Your task to perform on an android device: turn on translation in the chrome app Image 0: 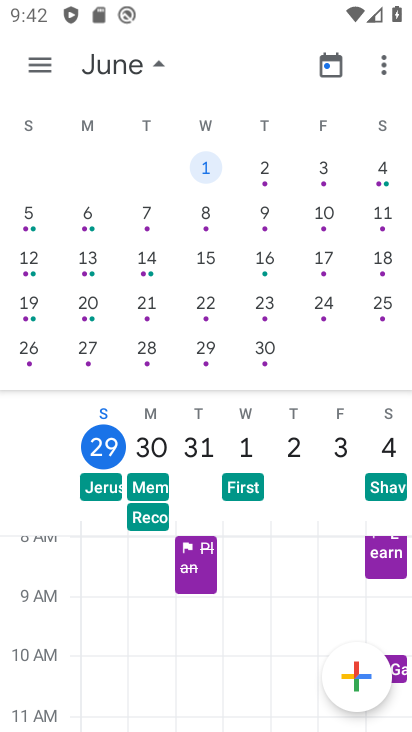
Step 0: press home button
Your task to perform on an android device: turn on translation in the chrome app Image 1: 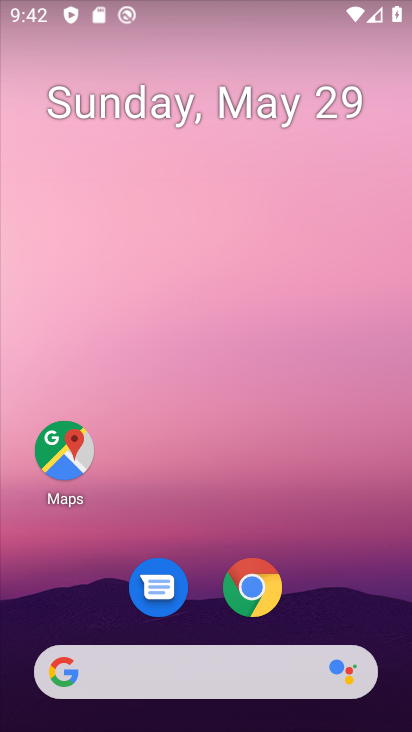
Step 1: click (245, 582)
Your task to perform on an android device: turn on translation in the chrome app Image 2: 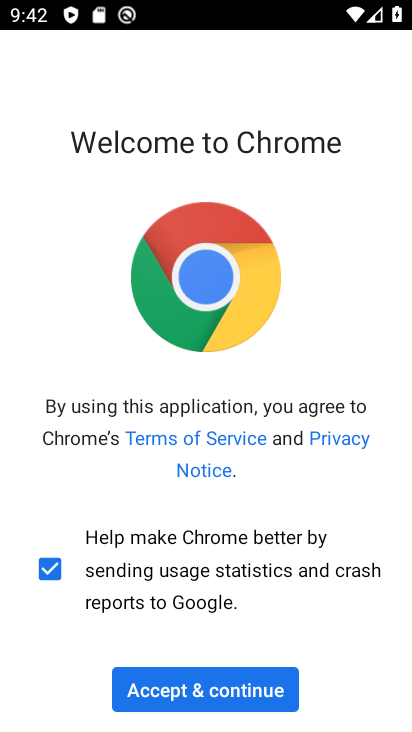
Step 2: click (223, 694)
Your task to perform on an android device: turn on translation in the chrome app Image 3: 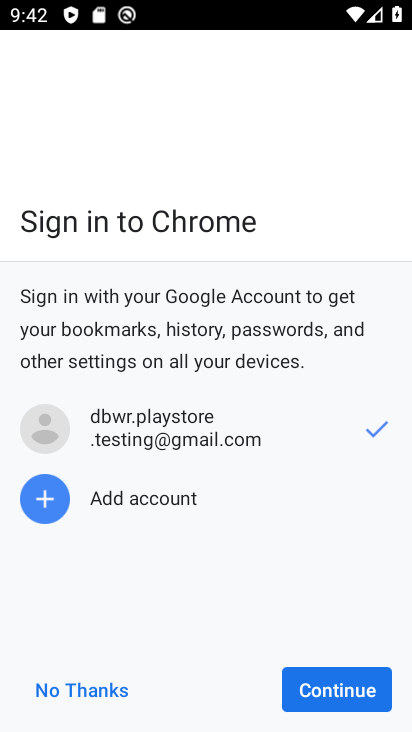
Step 3: click (313, 694)
Your task to perform on an android device: turn on translation in the chrome app Image 4: 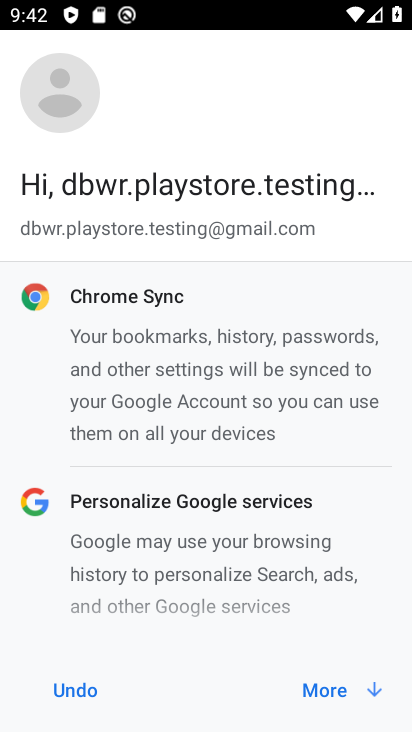
Step 4: click (313, 694)
Your task to perform on an android device: turn on translation in the chrome app Image 5: 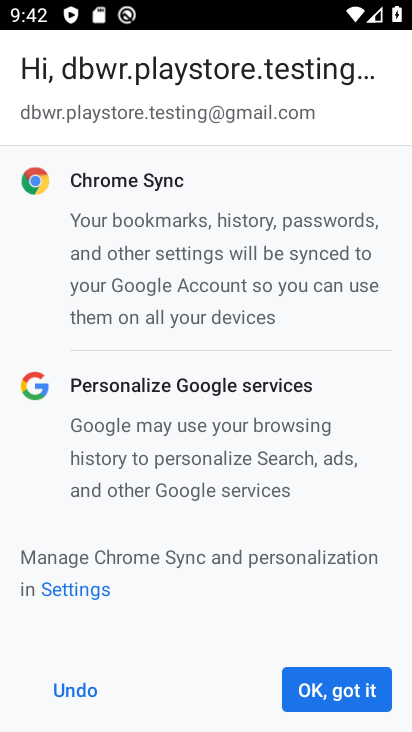
Step 5: click (313, 694)
Your task to perform on an android device: turn on translation in the chrome app Image 6: 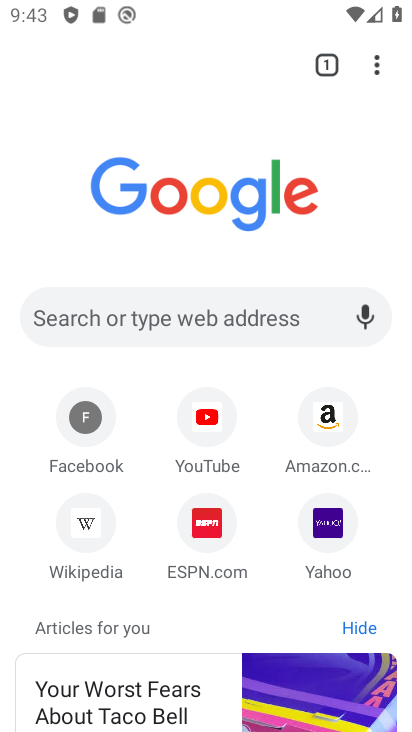
Step 6: click (384, 78)
Your task to perform on an android device: turn on translation in the chrome app Image 7: 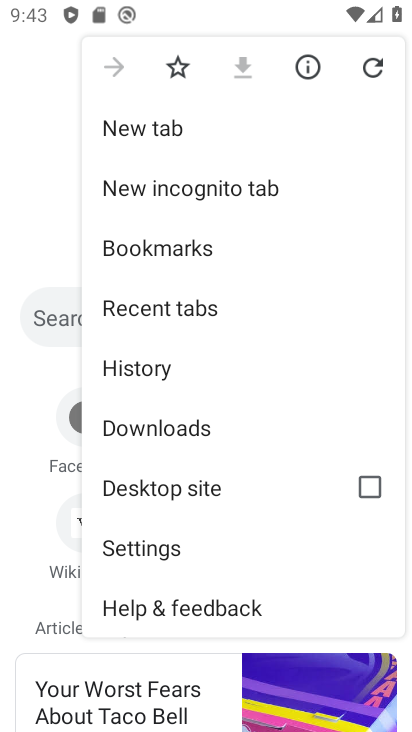
Step 7: click (185, 536)
Your task to perform on an android device: turn on translation in the chrome app Image 8: 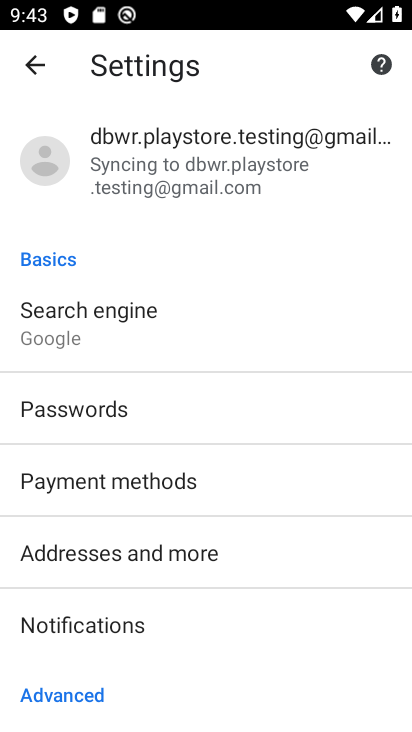
Step 8: drag from (221, 660) to (176, 209)
Your task to perform on an android device: turn on translation in the chrome app Image 9: 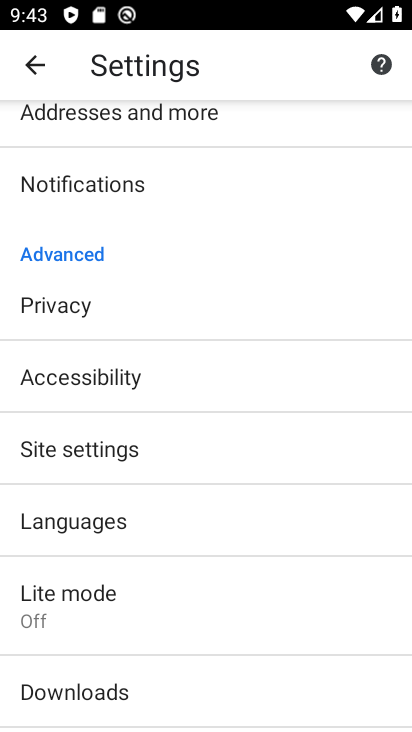
Step 9: click (182, 536)
Your task to perform on an android device: turn on translation in the chrome app Image 10: 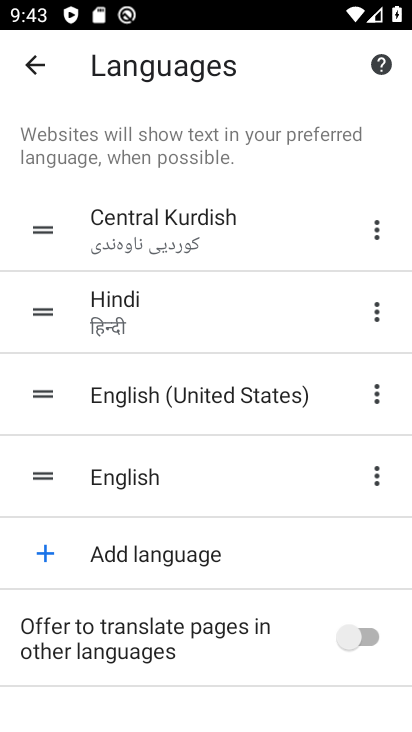
Step 10: click (379, 649)
Your task to perform on an android device: turn on translation in the chrome app Image 11: 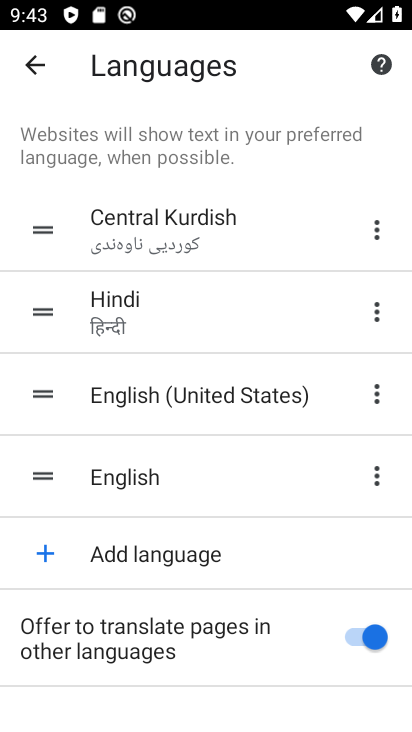
Step 11: task complete